Your task to perform on an android device: turn off translation in the chrome app Image 0: 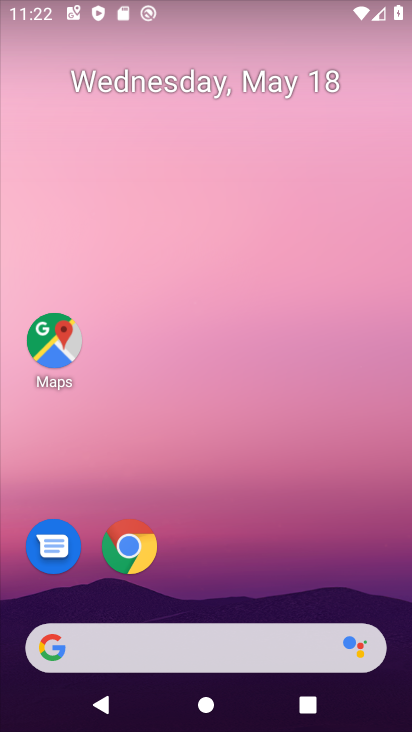
Step 0: drag from (232, 558) to (247, 119)
Your task to perform on an android device: turn off translation in the chrome app Image 1: 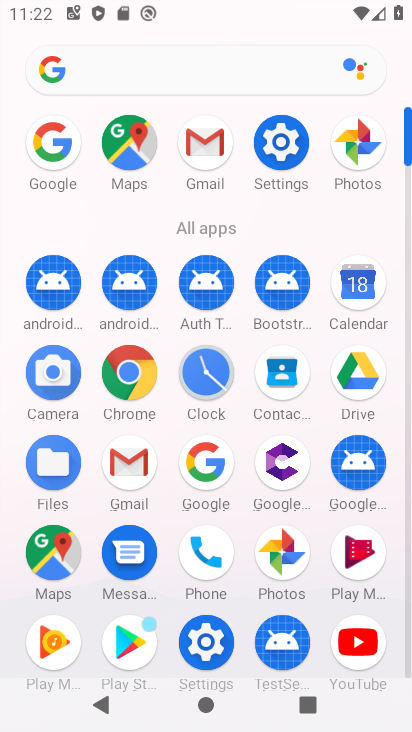
Step 1: click (131, 375)
Your task to perform on an android device: turn off translation in the chrome app Image 2: 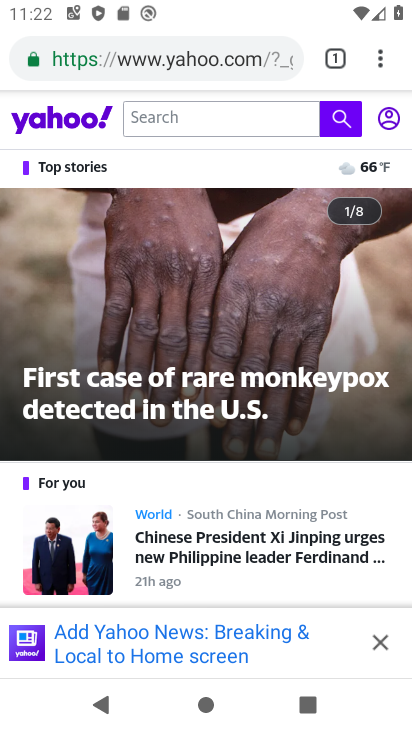
Step 2: click (368, 61)
Your task to perform on an android device: turn off translation in the chrome app Image 3: 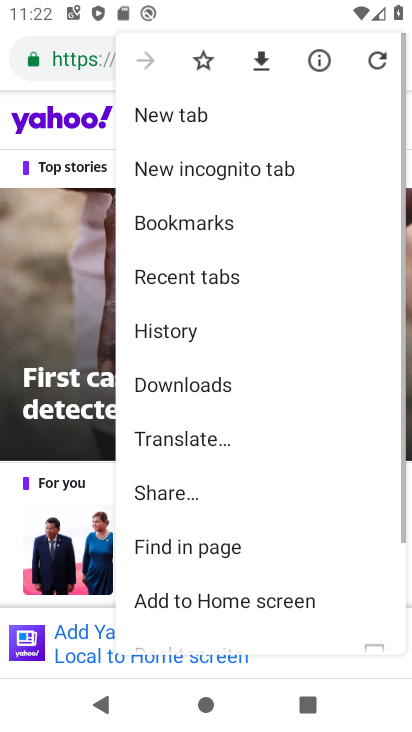
Step 3: drag from (270, 525) to (220, 85)
Your task to perform on an android device: turn off translation in the chrome app Image 4: 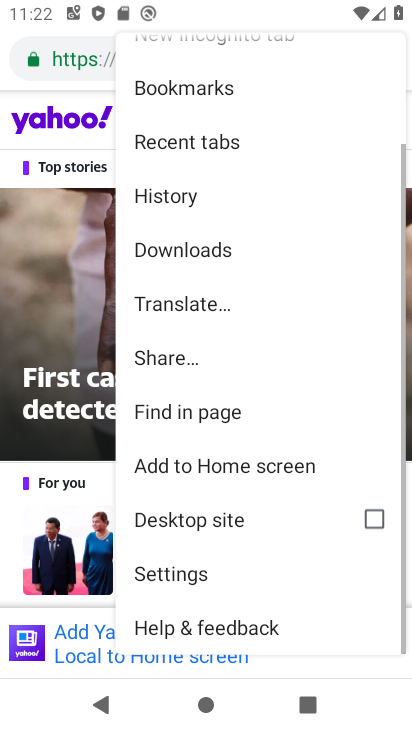
Step 4: click (179, 572)
Your task to perform on an android device: turn off translation in the chrome app Image 5: 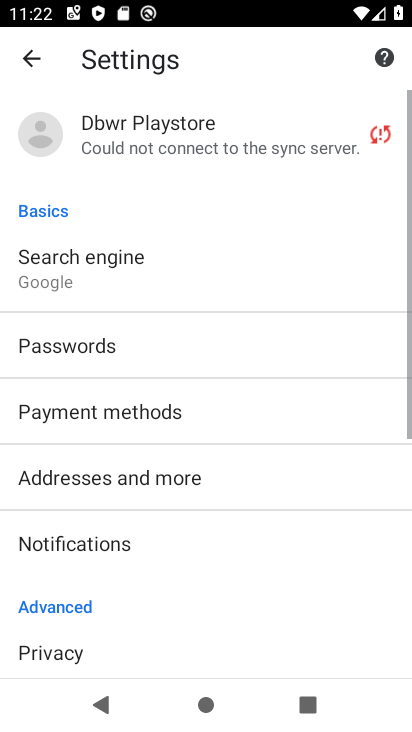
Step 5: drag from (204, 579) to (212, 101)
Your task to perform on an android device: turn off translation in the chrome app Image 6: 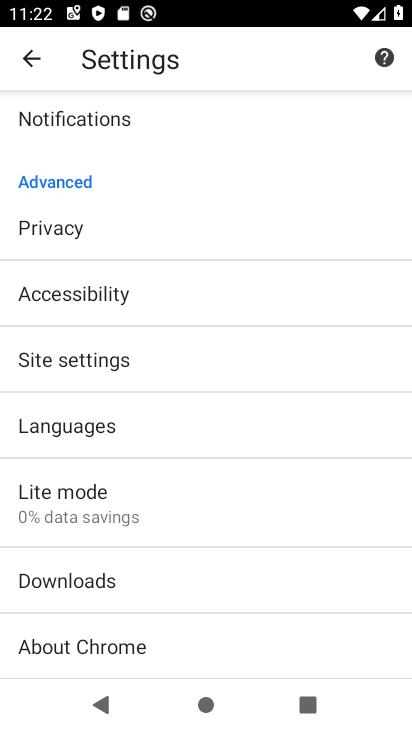
Step 6: click (102, 418)
Your task to perform on an android device: turn off translation in the chrome app Image 7: 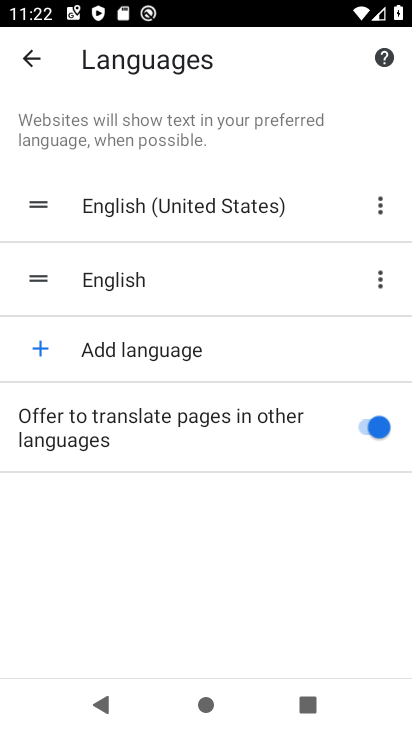
Step 7: click (364, 422)
Your task to perform on an android device: turn off translation in the chrome app Image 8: 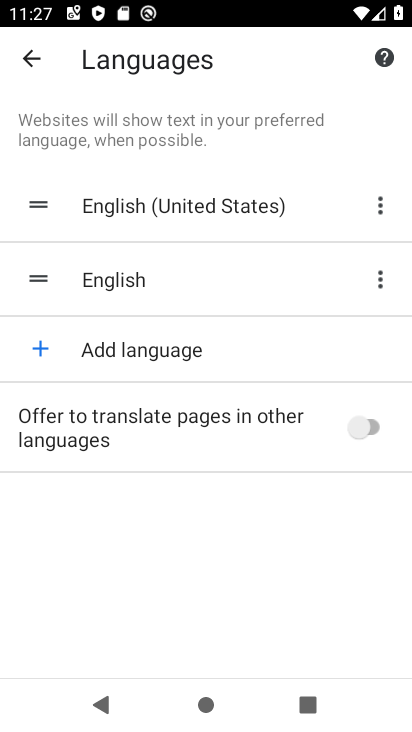
Step 8: task complete